Your task to perform on an android device: Go to Yahoo.com Image 0: 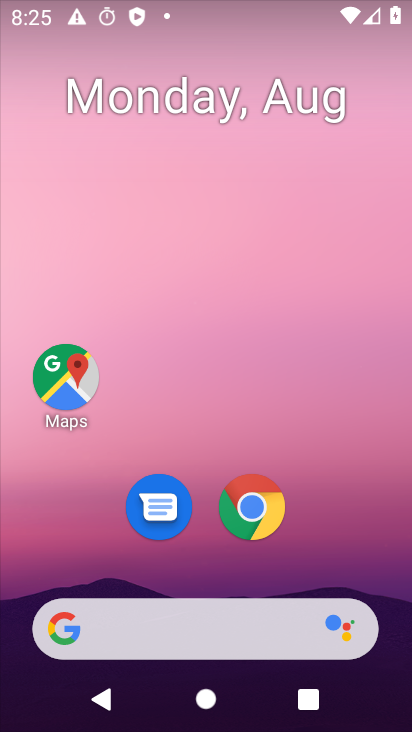
Step 0: click (260, 512)
Your task to perform on an android device: Go to Yahoo.com Image 1: 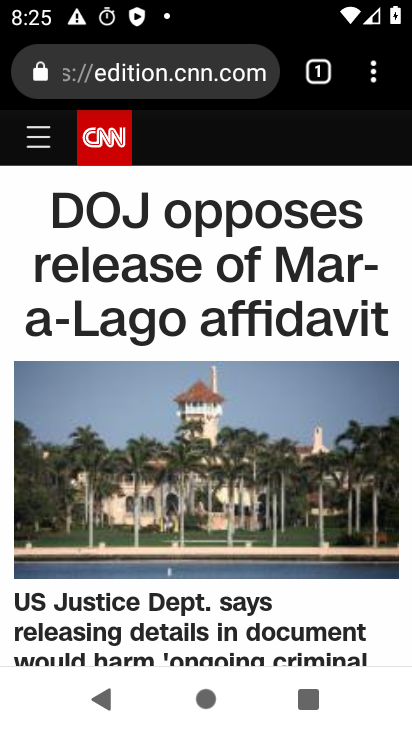
Step 1: drag from (377, 79) to (187, 142)
Your task to perform on an android device: Go to Yahoo.com Image 2: 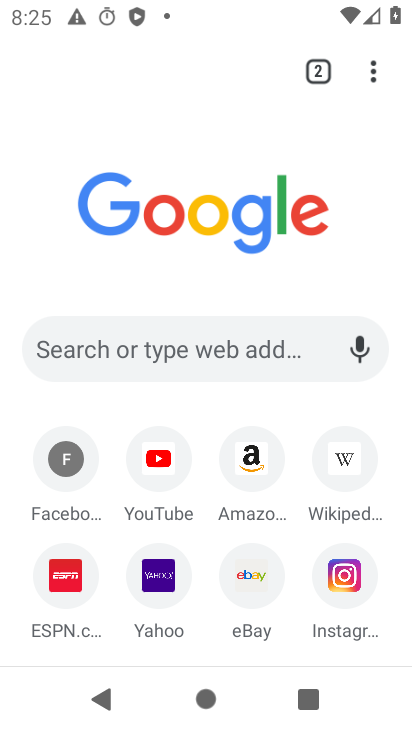
Step 2: click (159, 576)
Your task to perform on an android device: Go to Yahoo.com Image 3: 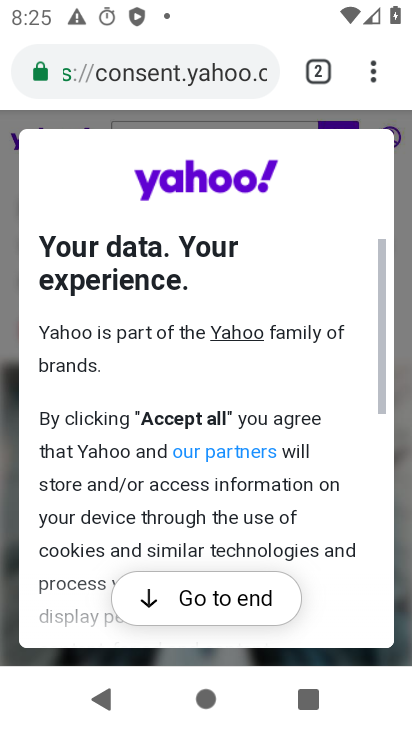
Step 3: click (234, 600)
Your task to perform on an android device: Go to Yahoo.com Image 4: 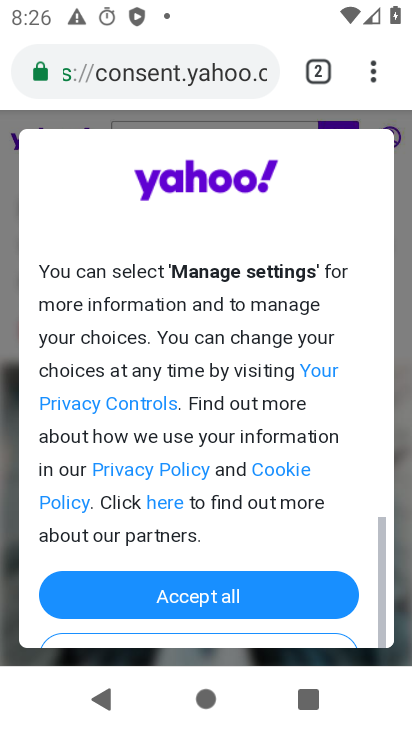
Step 4: click (220, 598)
Your task to perform on an android device: Go to Yahoo.com Image 5: 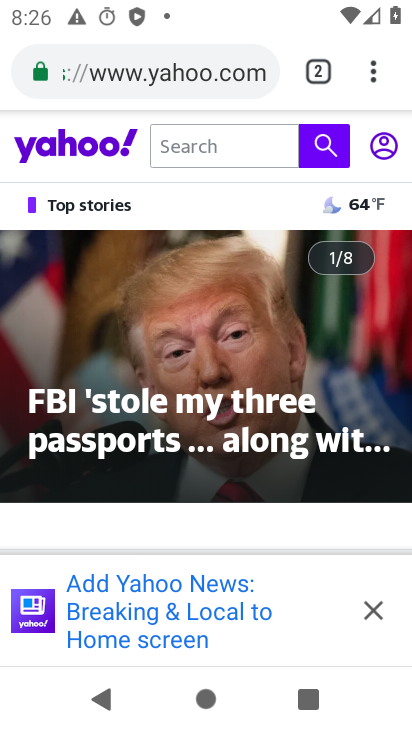
Step 5: task complete